Your task to perform on an android device: Open battery settings Image 0: 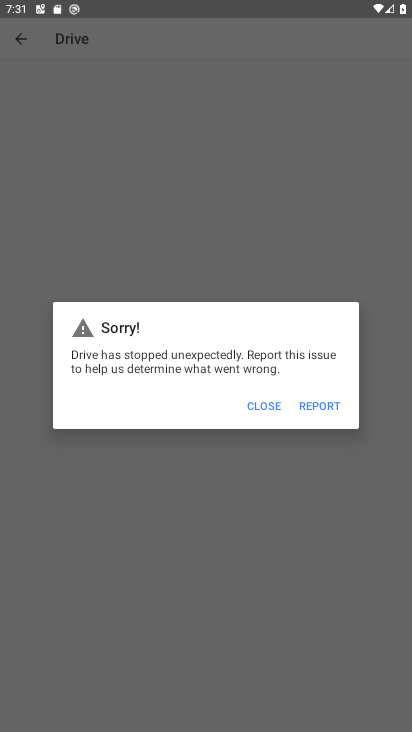
Step 0: press home button
Your task to perform on an android device: Open battery settings Image 1: 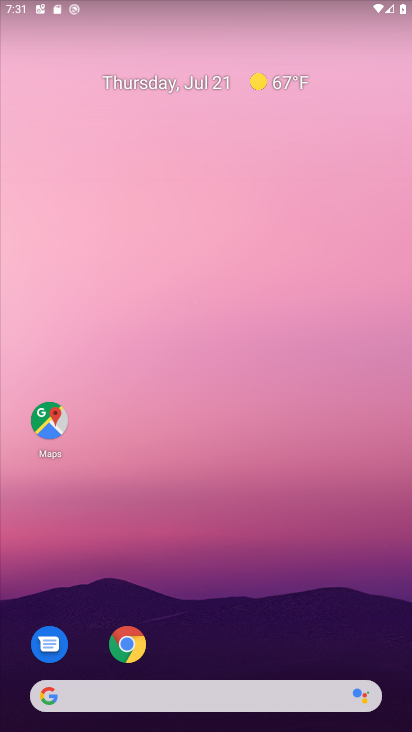
Step 1: drag from (220, 643) to (216, 94)
Your task to perform on an android device: Open battery settings Image 2: 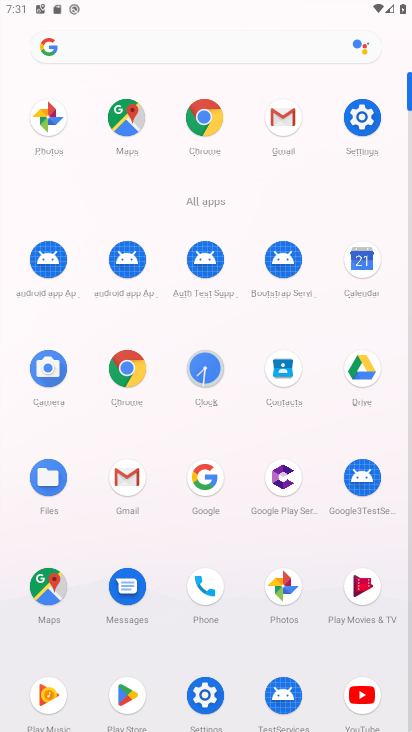
Step 2: click (205, 693)
Your task to perform on an android device: Open battery settings Image 3: 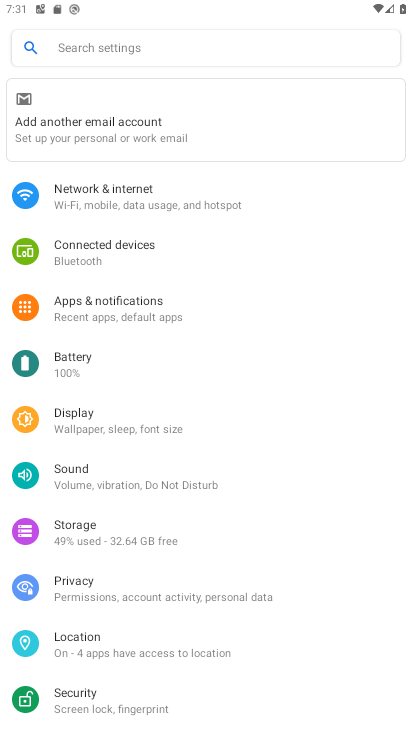
Step 3: click (102, 365)
Your task to perform on an android device: Open battery settings Image 4: 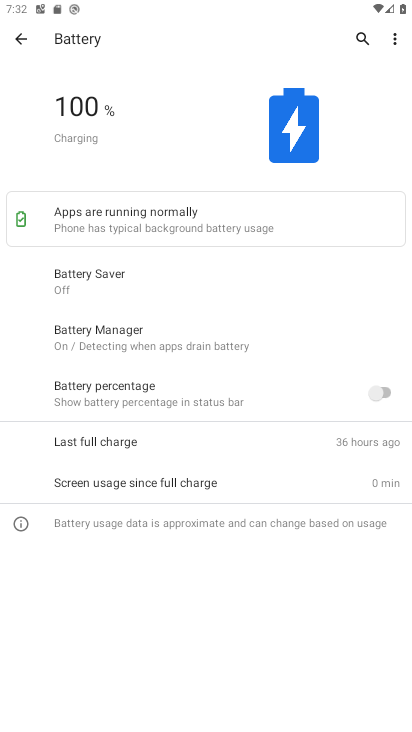
Step 4: task complete